Your task to perform on an android device: set an alarm Image 0: 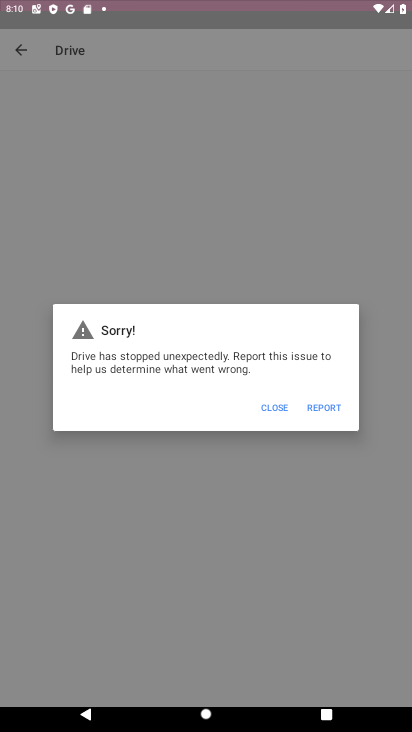
Step 0: drag from (214, 67) to (133, 219)
Your task to perform on an android device: set an alarm Image 1: 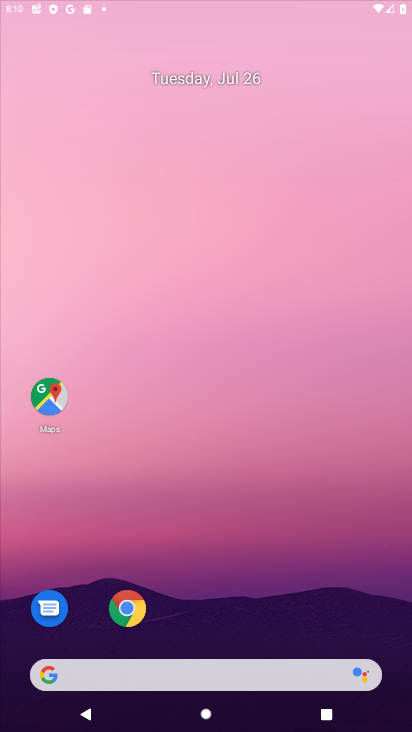
Step 1: drag from (238, 592) to (188, 220)
Your task to perform on an android device: set an alarm Image 2: 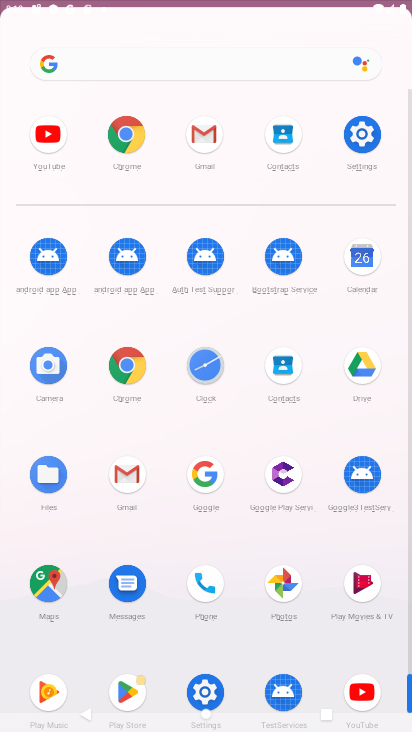
Step 2: drag from (344, 526) to (276, 269)
Your task to perform on an android device: set an alarm Image 3: 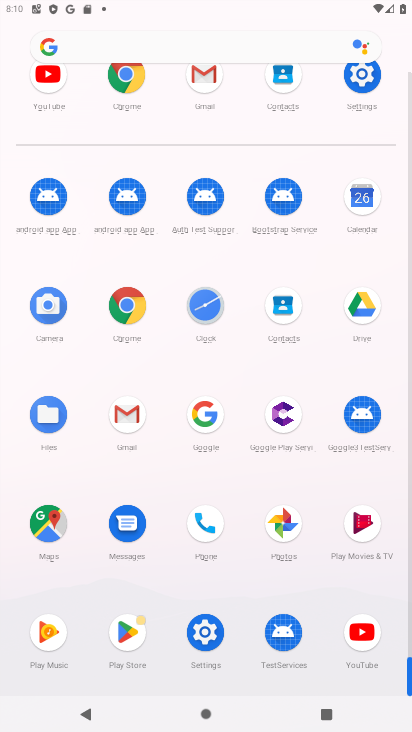
Step 3: click (202, 310)
Your task to perform on an android device: set an alarm Image 4: 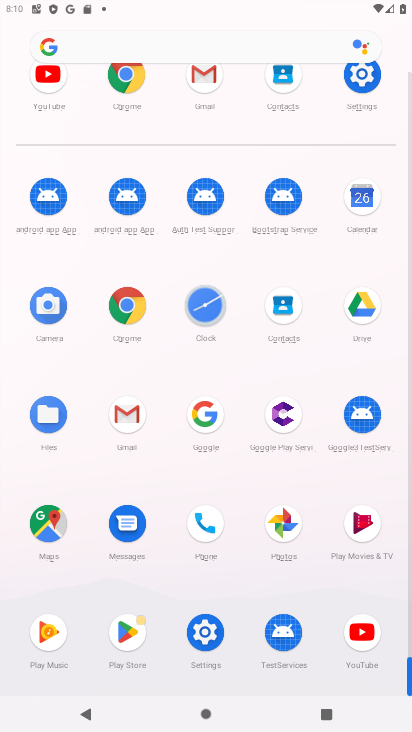
Step 4: click (214, 308)
Your task to perform on an android device: set an alarm Image 5: 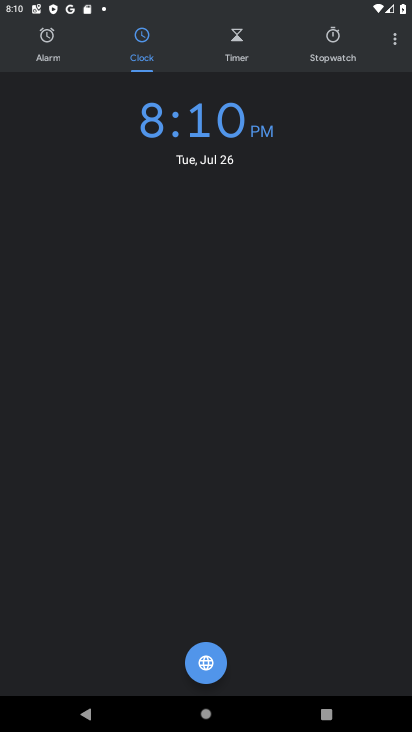
Step 5: click (48, 55)
Your task to perform on an android device: set an alarm Image 6: 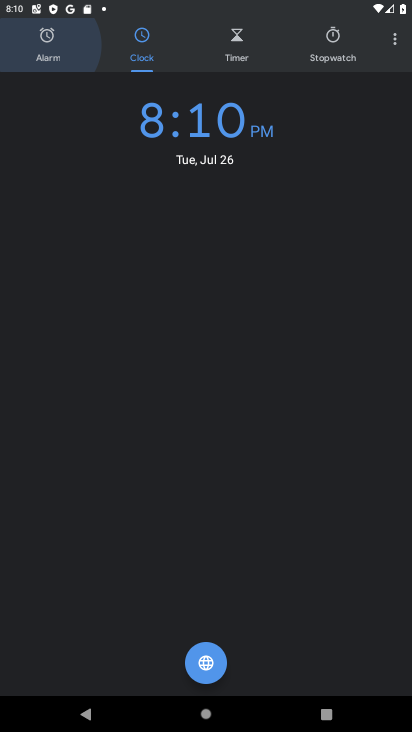
Step 6: click (48, 55)
Your task to perform on an android device: set an alarm Image 7: 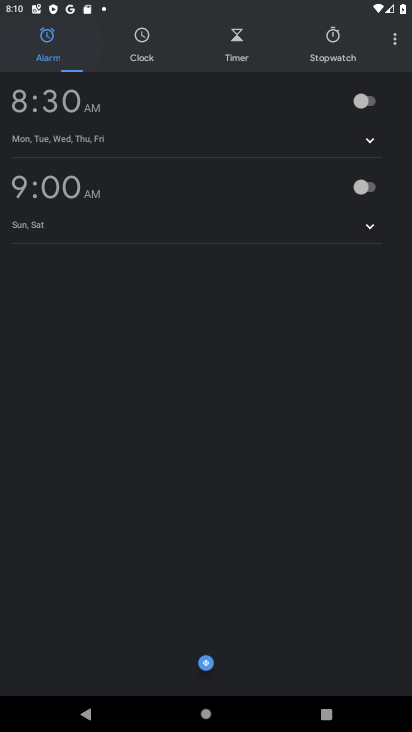
Step 7: click (46, 52)
Your task to perform on an android device: set an alarm Image 8: 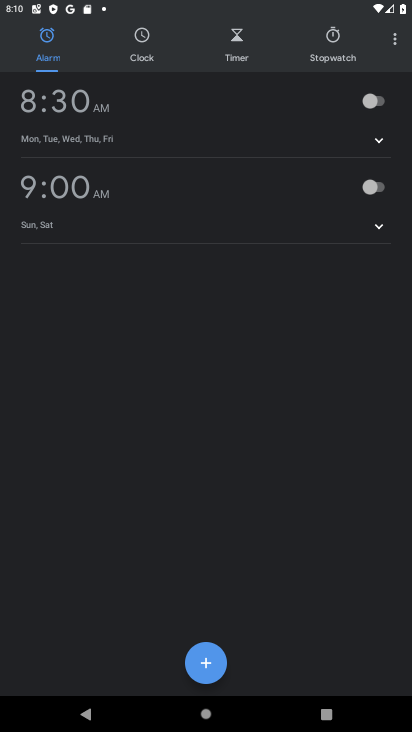
Step 8: click (377, 98)
Your task to perform on an android device: set an alarm Image 9: 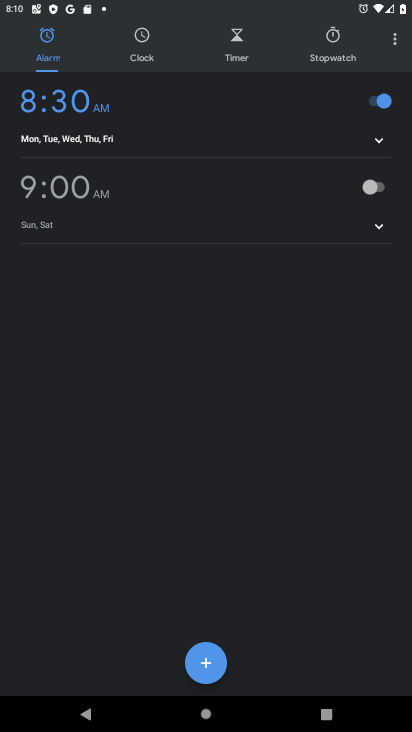
Step 9: task complete